Your task to perform on an android device: turn on showing notifications on the lock screen Image 0: 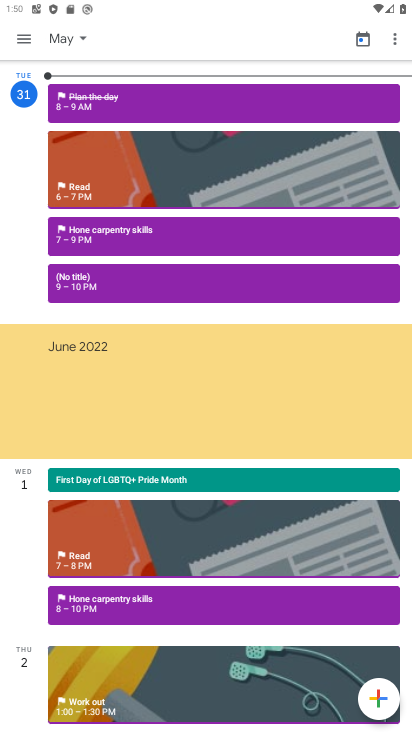
Step 0: press home button
Your task to perform on an android device: turn on showing notifications on the lock screen Image 1: 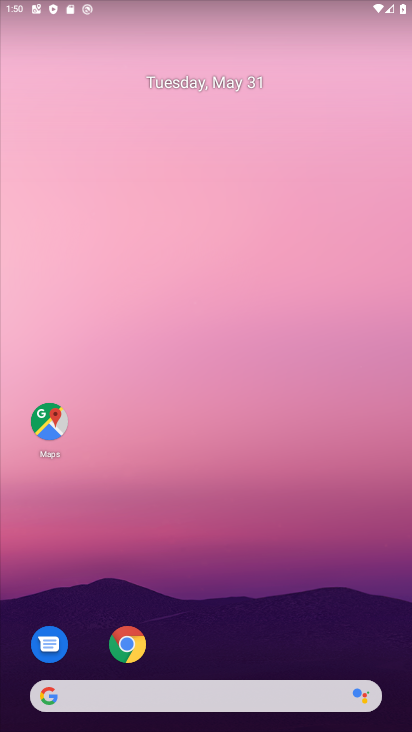
Step 1: drag from (382, 686) to (299, 196)
Your task to perform on an android device: turn on showing notifications on the lock screen Image 2: 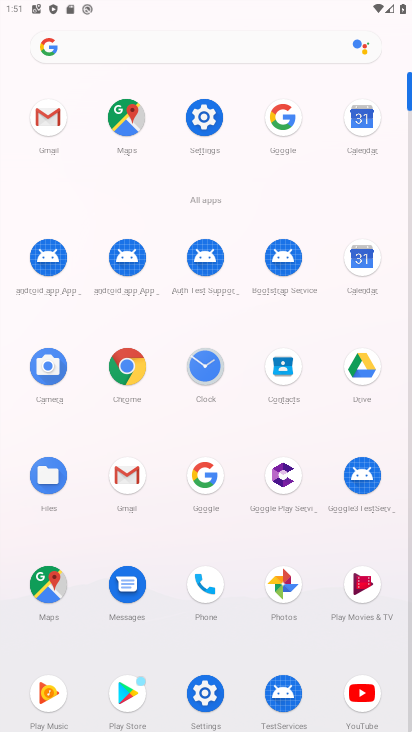
Step 2: click (198, 129)
Your task to perform on an android device: turn on showing notifications on the lock screen Image 3: 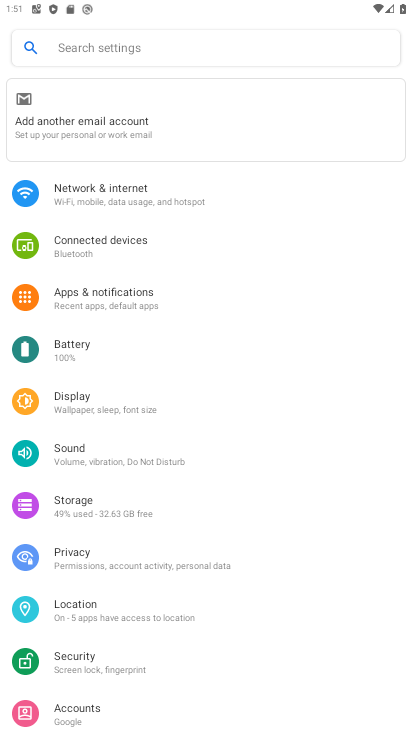
Step 3: click (121, 297)
Your task to perform on an android device: turn on showing notifications on the lock screen Image 4: 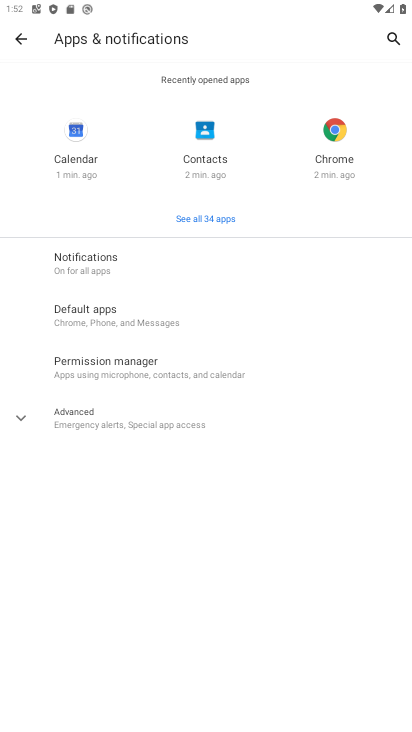
Step 4: click (78, 259)
Your task to perform on an android device: turn on showing notifications on the lock screen Image 5: 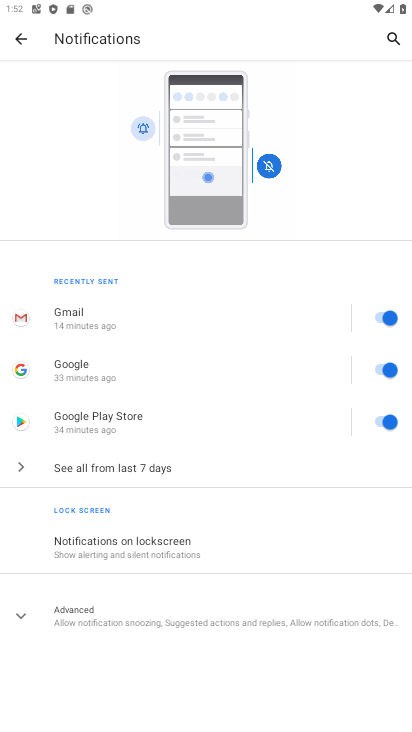
Step 5: click (150, 546)
Your task to perform on an android device: turn on showing notifications on the lock screen Image 6: 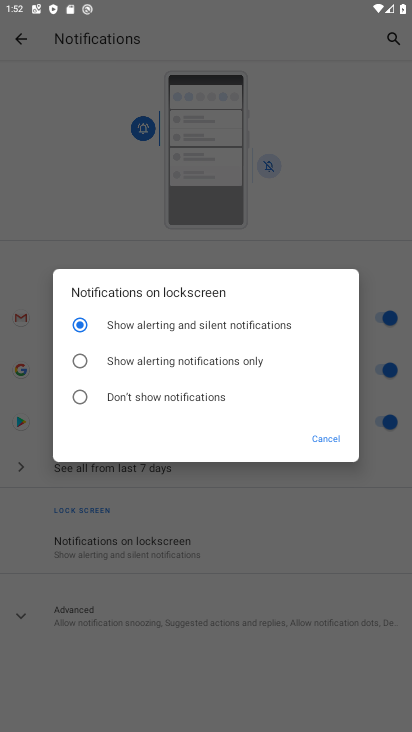
Step 6: task complete